Your task to perform on an android device: Go to privacy settings Image 0: 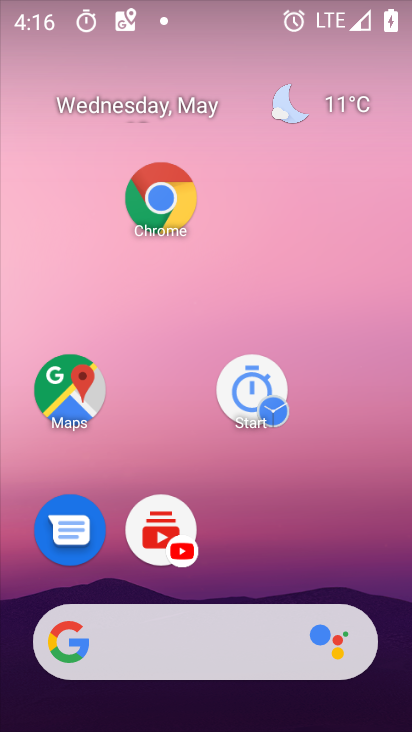
Step 0: drag from (351, 672) to (290, 283)
Your task to perform on an android device: Go to privacy settings Image 1: 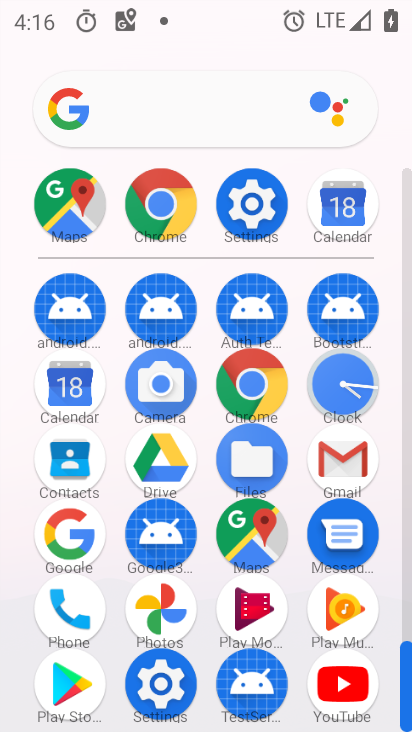
Step 1: click (244, 206)
Your task to perform on an android device: Go to privacy settings Image 2: 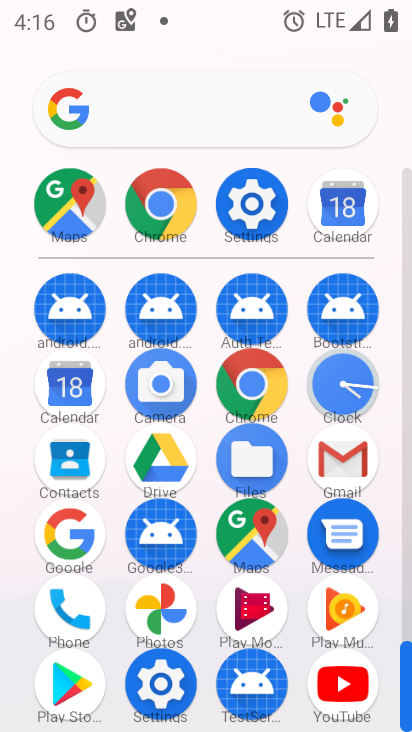
Step 2: click (244, 206)
Your task to perform on an android device: Go to privacy settings Image 3: 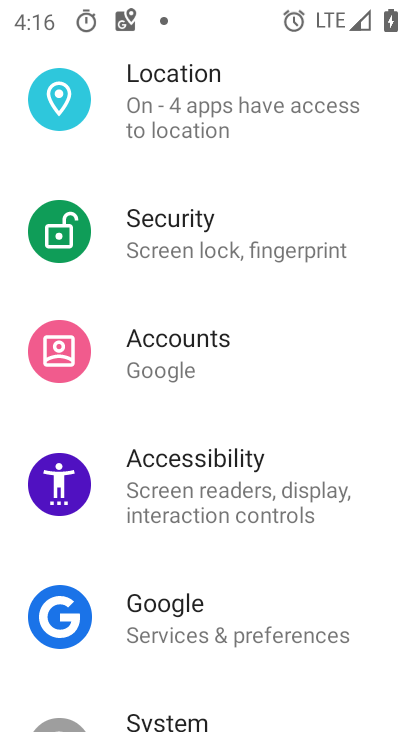
Step 3: drag from (184, 529) to (111, 62)
Your task to perform on an android device: Go to privacy settings Image 4: 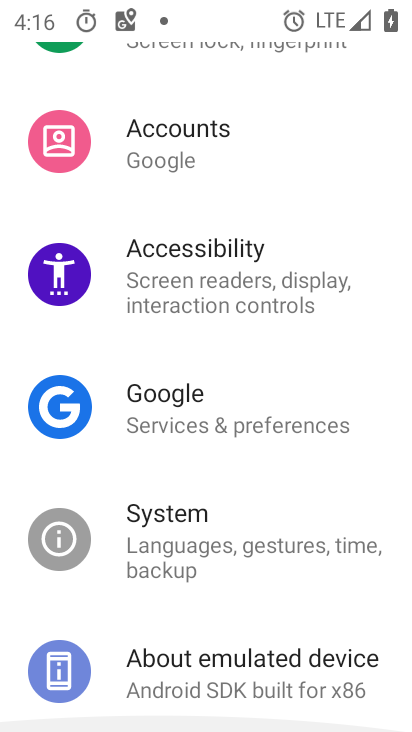
Step 4: drag from (233, 456) to (134, 13)
Your task to perform on an android device: Go to privacy settings Image 5: 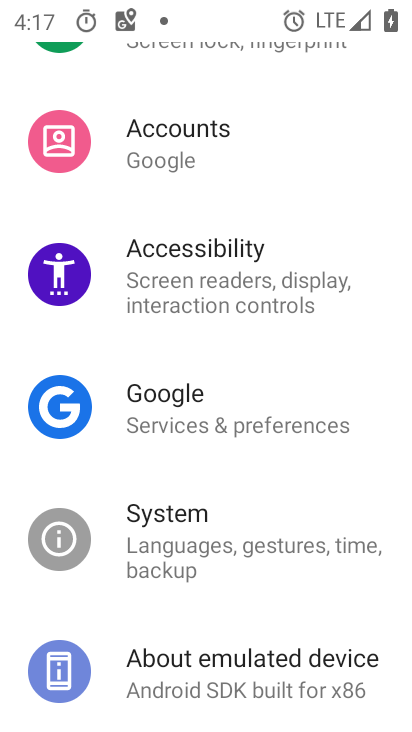
Step 5: drag from (167, 249) to (283, 665)
Your task to perform on an android device: Go to privacy settings Image 6: 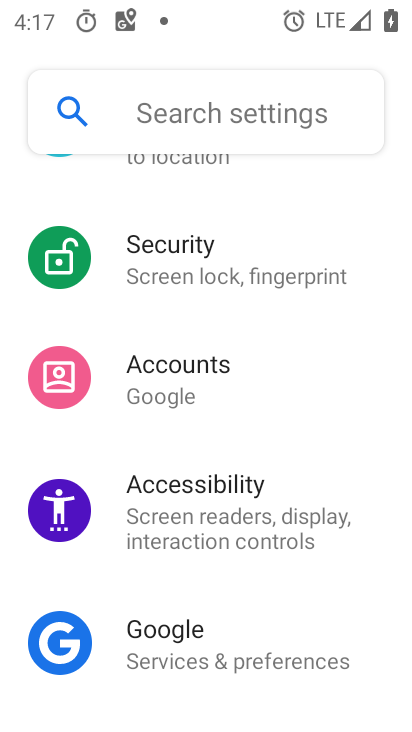
Step 6: drag from (191, 266) to (181, 678)
Your task to perform on an android device: Go to privacy settings Image 7: 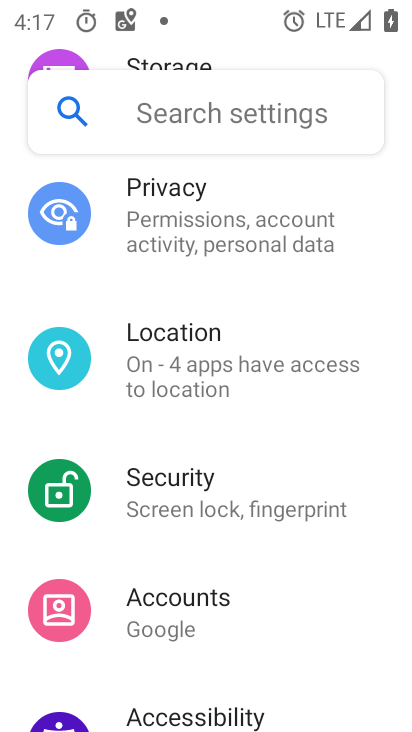
Step 7: drag from (213, 317) to (233, 644)
Your task to perform on an android device: Go to privacy settings Image 8: 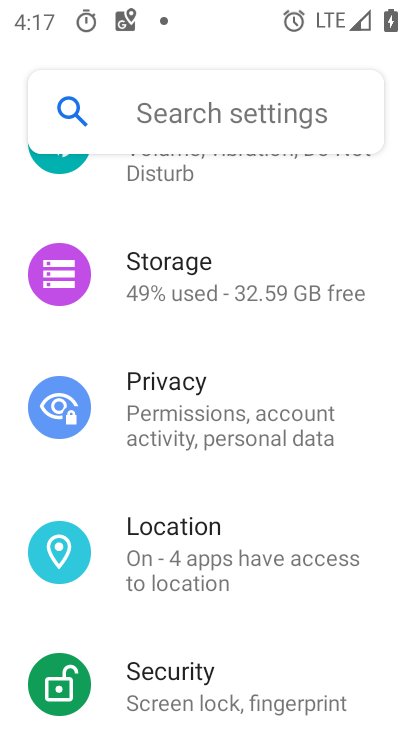
Step 8: click (186, 416)
Your task to perform on an android device: Go to privacy settings Image 9: 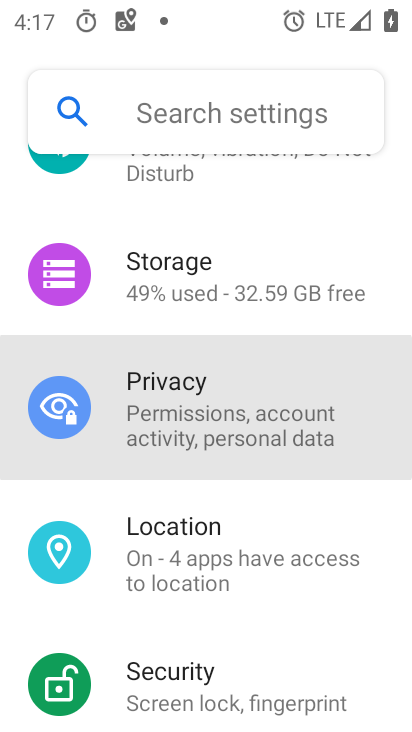
Step 9: click (191, 416)
Your task to perform on an android device: Go to privacy settings Image 10: 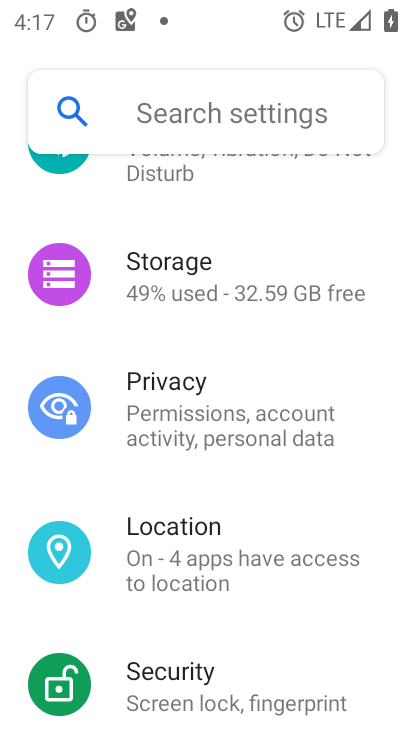
Step 10: click (191, 416)
Your task to perform on an android device: Go to privacy settings Image 11: 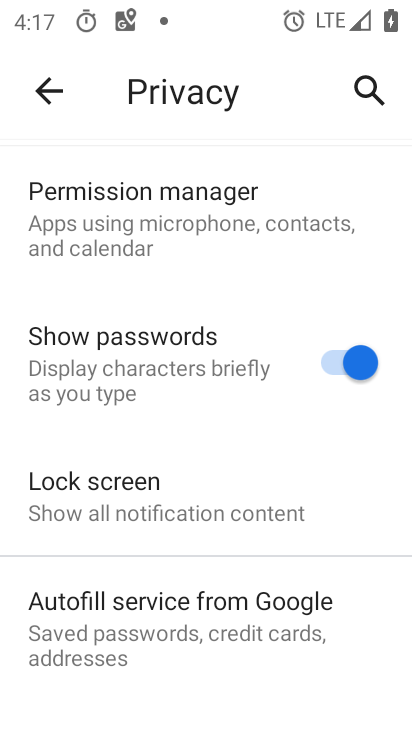
Step 11: task complete